Your task to perform on an android device: toggle pop-ups in chrome Image 0: 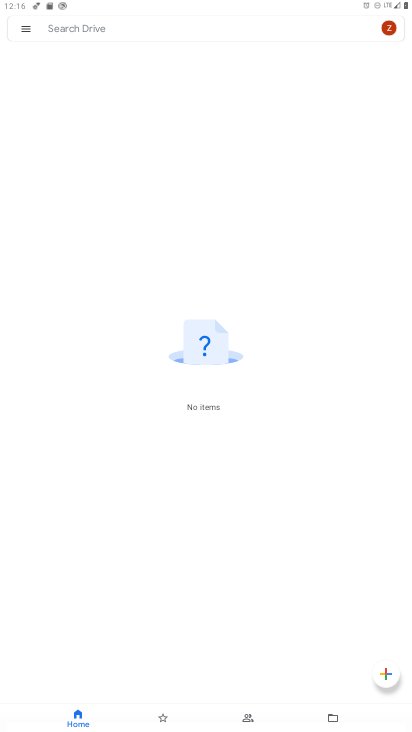
Step 0: press home button
Your task to perform on an android device: toggle pop-ups in chrome Image 1: 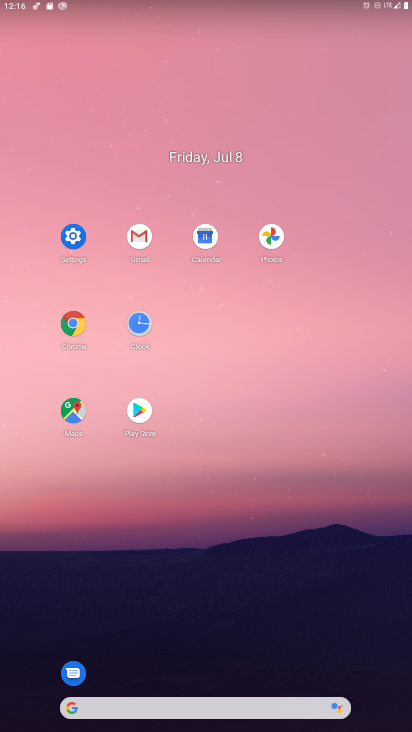
Step 1: click (81, 317)
Your task to perform on an android device: toggle pop-ups in chrome Image 2: 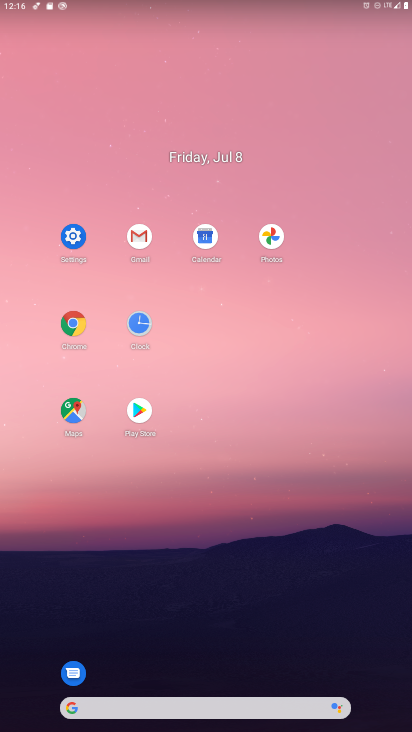
Step 2: click (84, 315)
Your task to perform on an android device: toggle pop-ups in chrome Image 3: 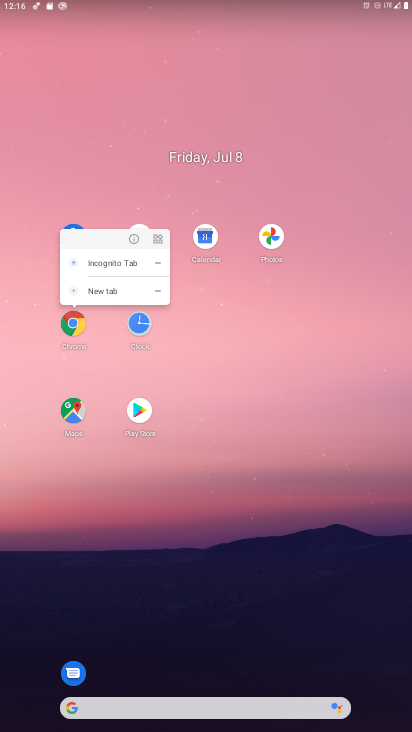
Step 3: click (77, 313)
Your task to perform on an android device: toggle pop-ups in chrome Image 4: 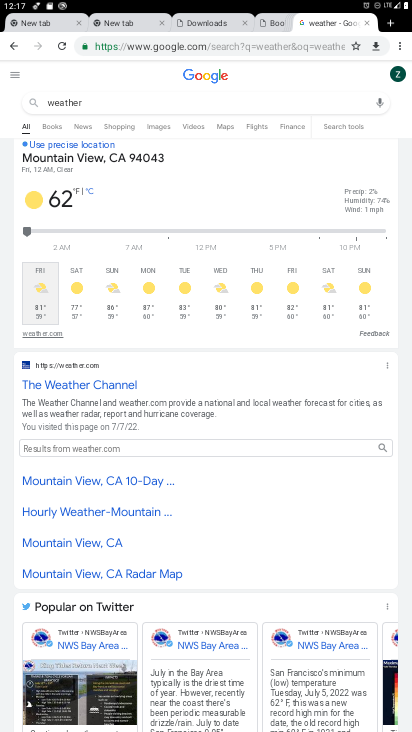
Step 4: click (396, 50)
Your task to perform on an android device: toggle pop-ups in chrome Image 5: 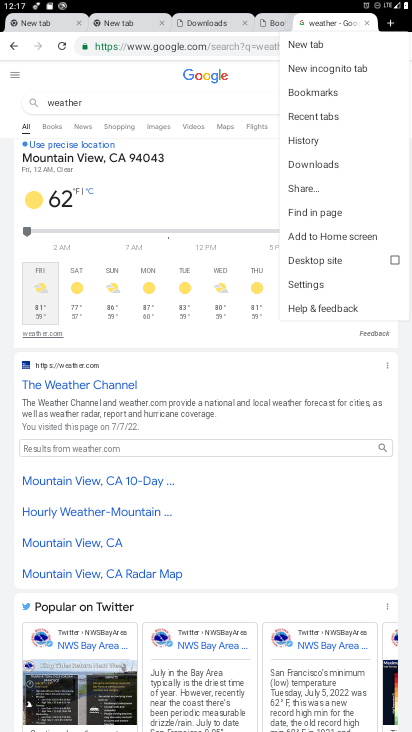
Step 5: click (314, 281)
Your task to perform on an android device: toggle pop-ups in chrome Image 6: 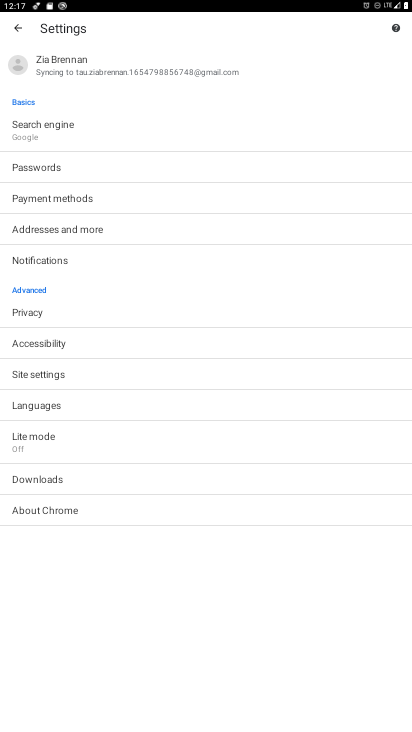
Step 6: click (106, 379)
Your task to perform on an android device: toggle pop-ups in chrome Image 7: 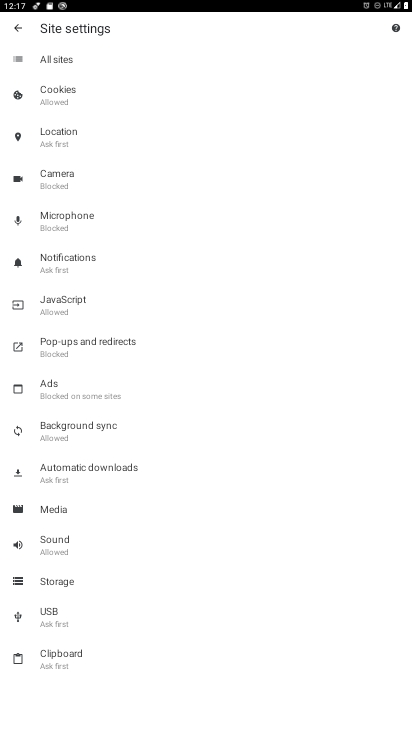
Step 7: click (88, 340)
Your task to perform on an android device: toggle pop-ups in chrome Image 8: 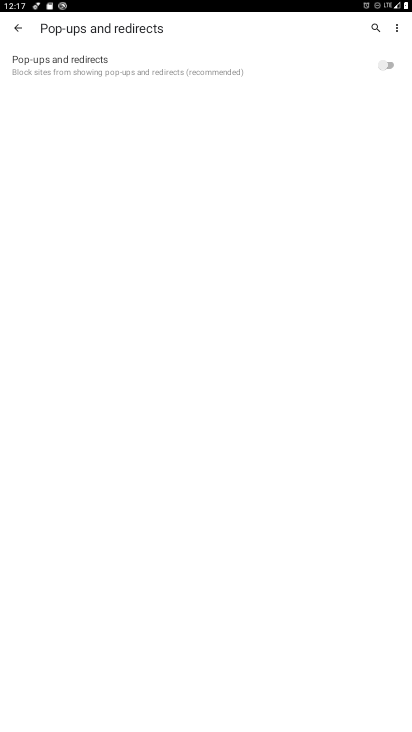
Step 8: click (390, 66)
Your task to perform on an android device: toggle pop-ups in chrome Image 9: 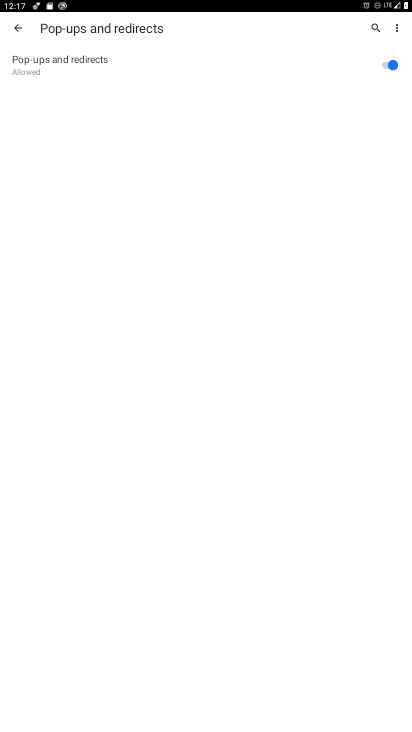
Step 9: task complete